Your task to perform on an android device: Do I have any events today? Image 0: 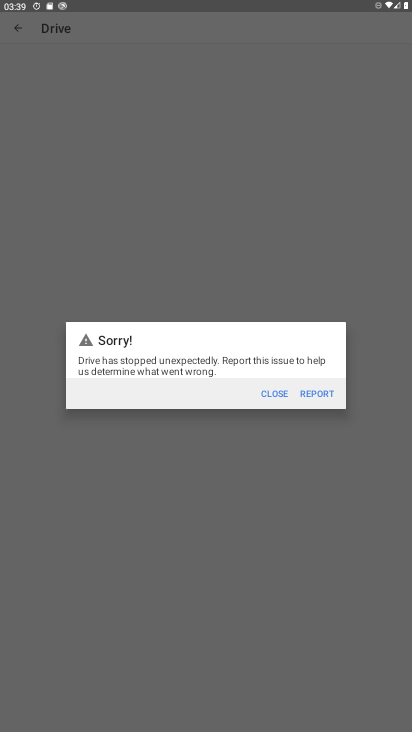
Step 0: press home button
Your task to perform on an android device: Do I have any events today? Image 1: 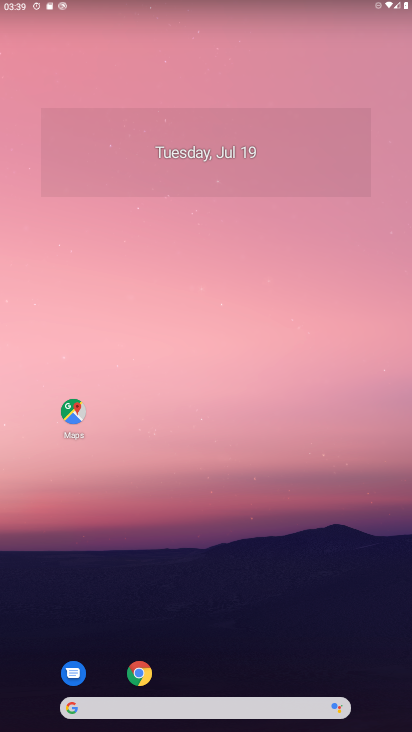
Step 1: drag from (186, 663) to (206, 60)
Your task to perform on an android device: Do I have any events today? Image 2: 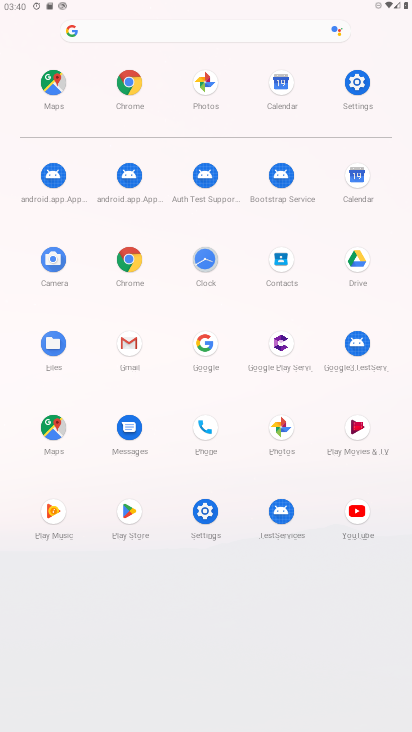
Step 2: click (359, 169)
Your task to perform on an android device: Do I have any events today? Image 3: 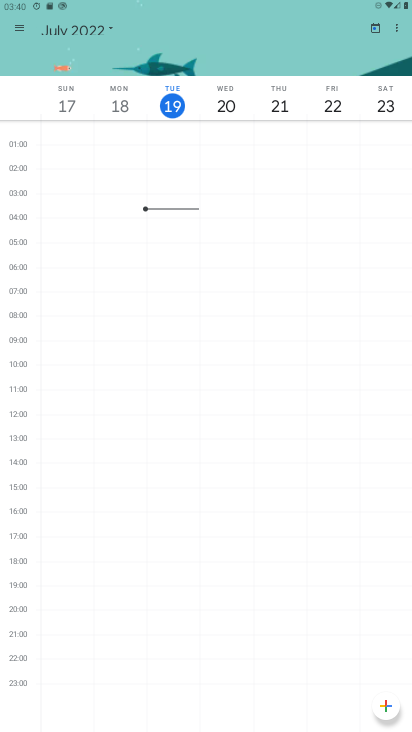
Step 3: click (18, 24)
Your task to perform on an android device: Do I have any events today? Image 4: 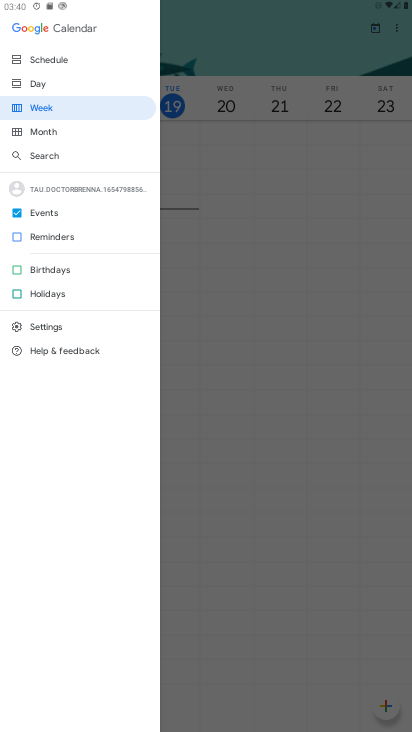
Step 4: click (39, 91)
Your task to perform on an android device: Do I have any events today? Image 5: 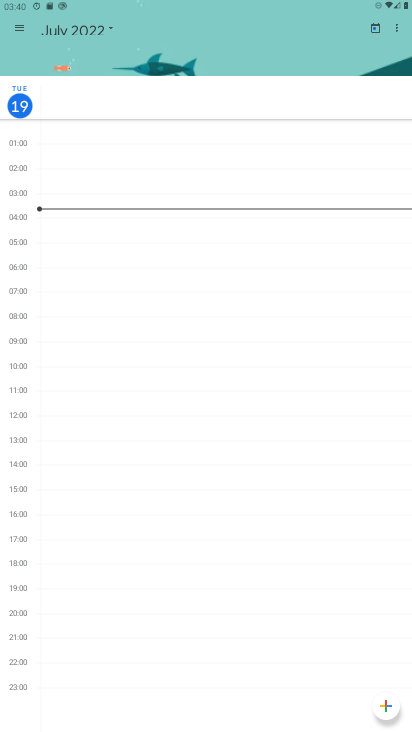
Step 5: task complete